Your task to perform on an android device: What's the weather going to be tomorrow? Image 0: 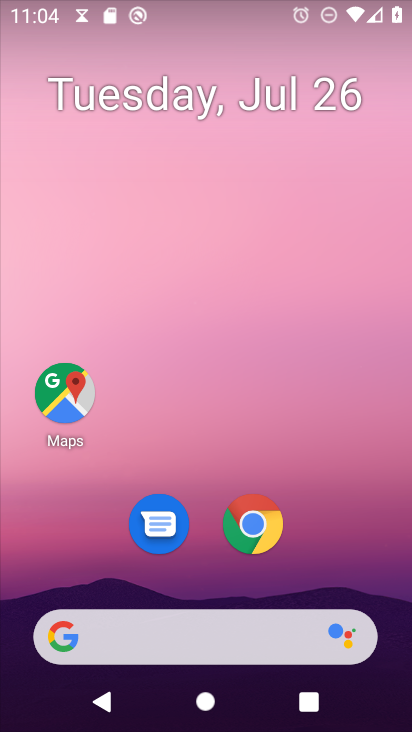
Step 0: click (138, 625)
Your task to perform on an android device: What's the weather going to be tomorrow? Image 1: 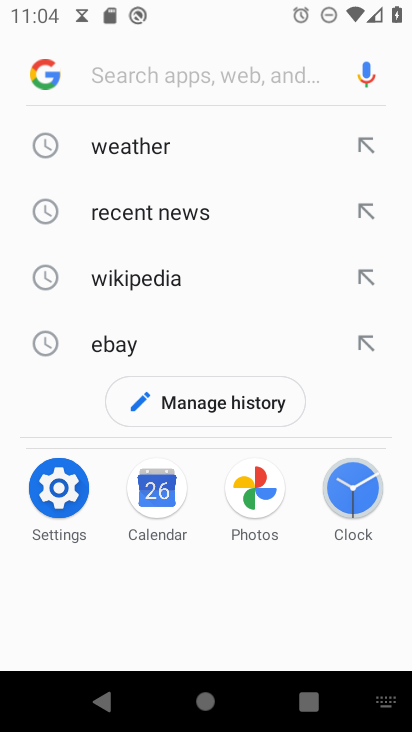
Step 1: click (122, 144)
Your task to perform on an android device: What's the weather going to be tomorrow? Image 2: 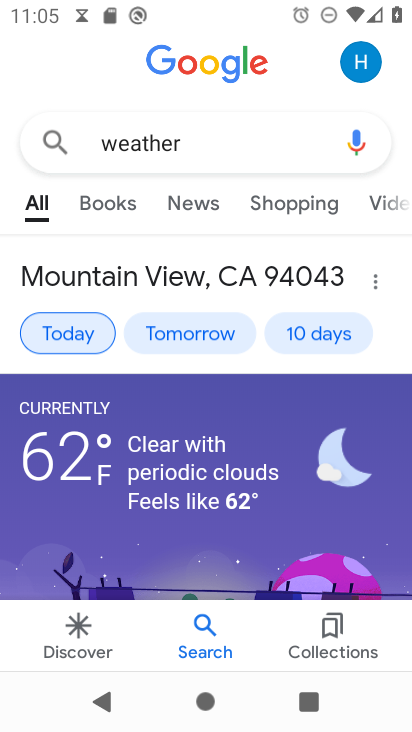
Step 2: click (186, 335)
Your task to perform on an android device: What's the weather going to be tomorrow? Image 3: 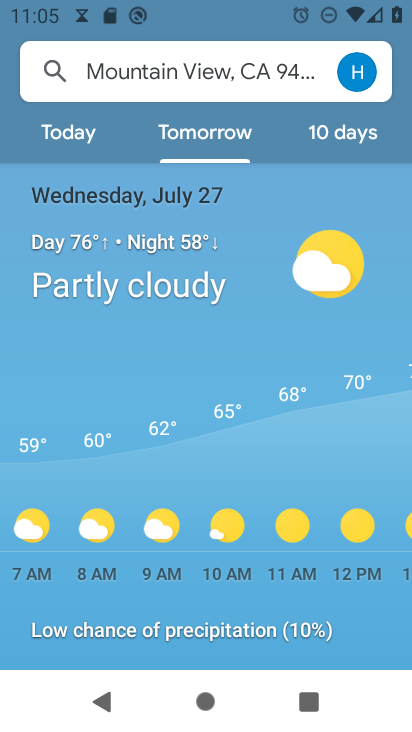
Step 3: task complete